Your task to perform on an android device: Open the stopwatch Image 0: 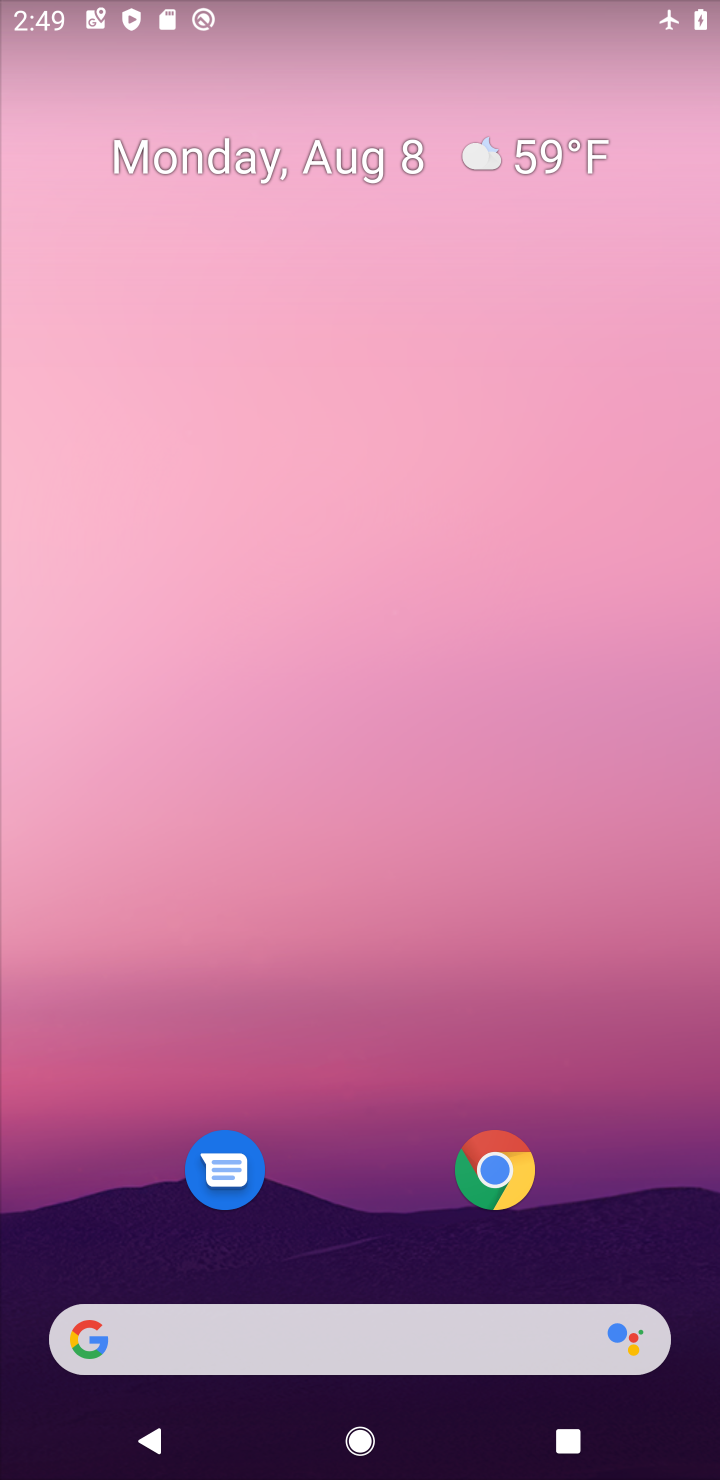
Step 0: drag from (349, 1114) to (373, 468)
Your task to perform on an android device: Open the stopwatch Image 1: 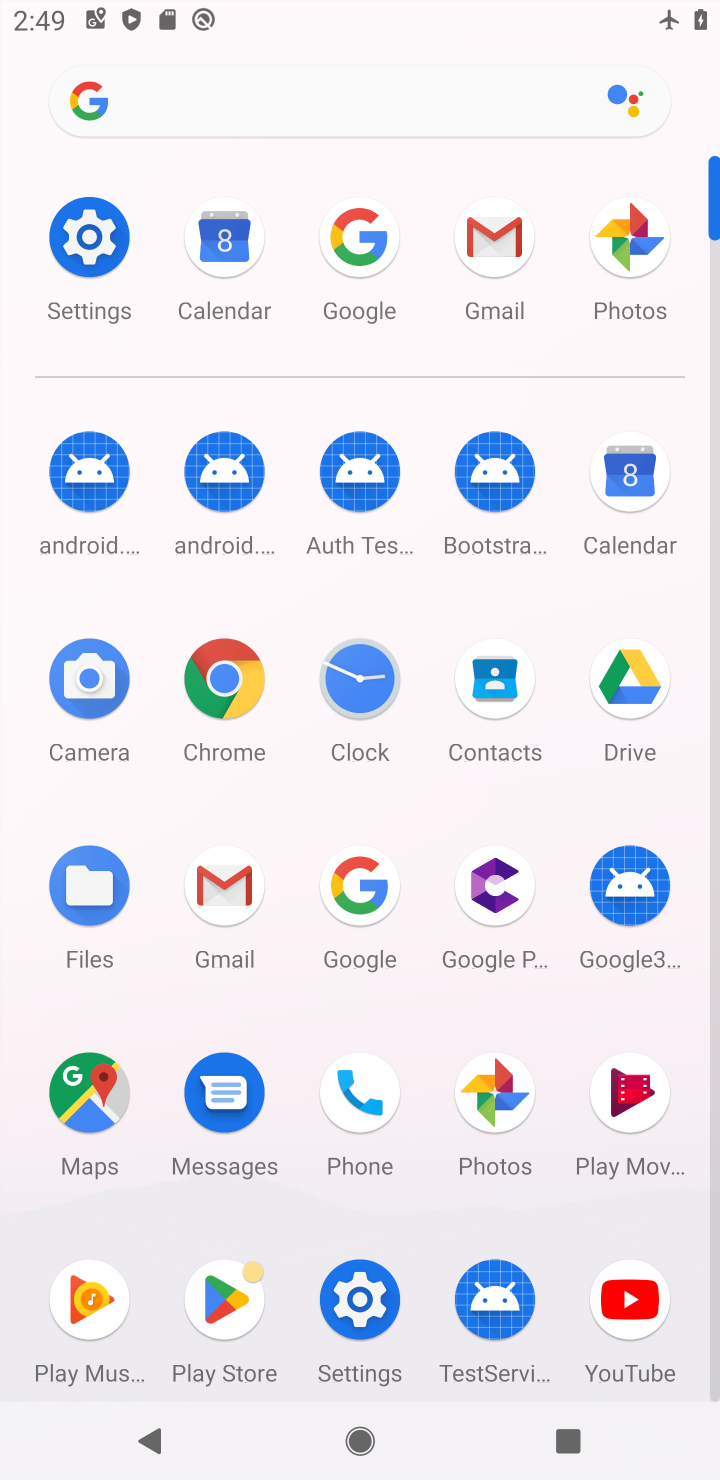
Step 1: click (339, 683)
Your task to perform on an android device: Open the stopwatch Image 2: 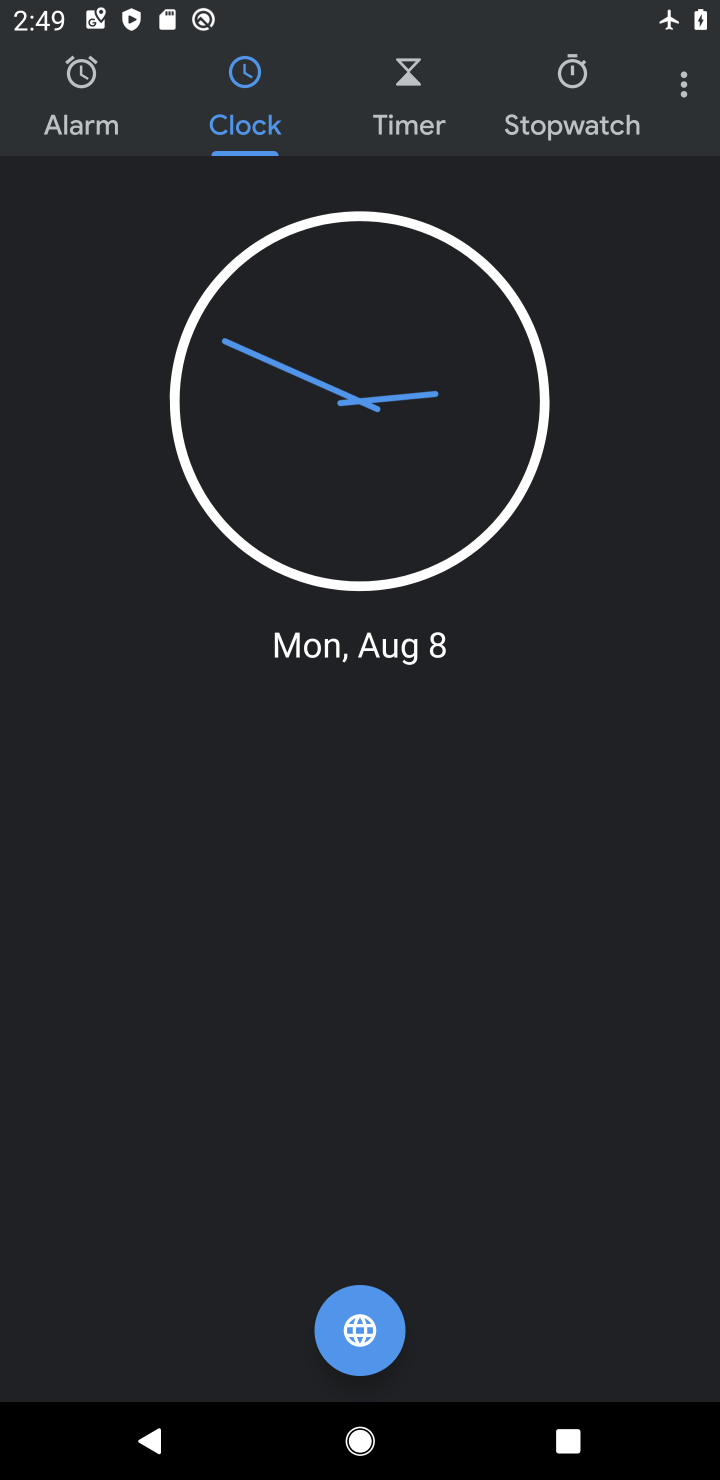
Step 2: click (581, 106)
Your task to perform on an android device: Open the stopwatch Image 3: 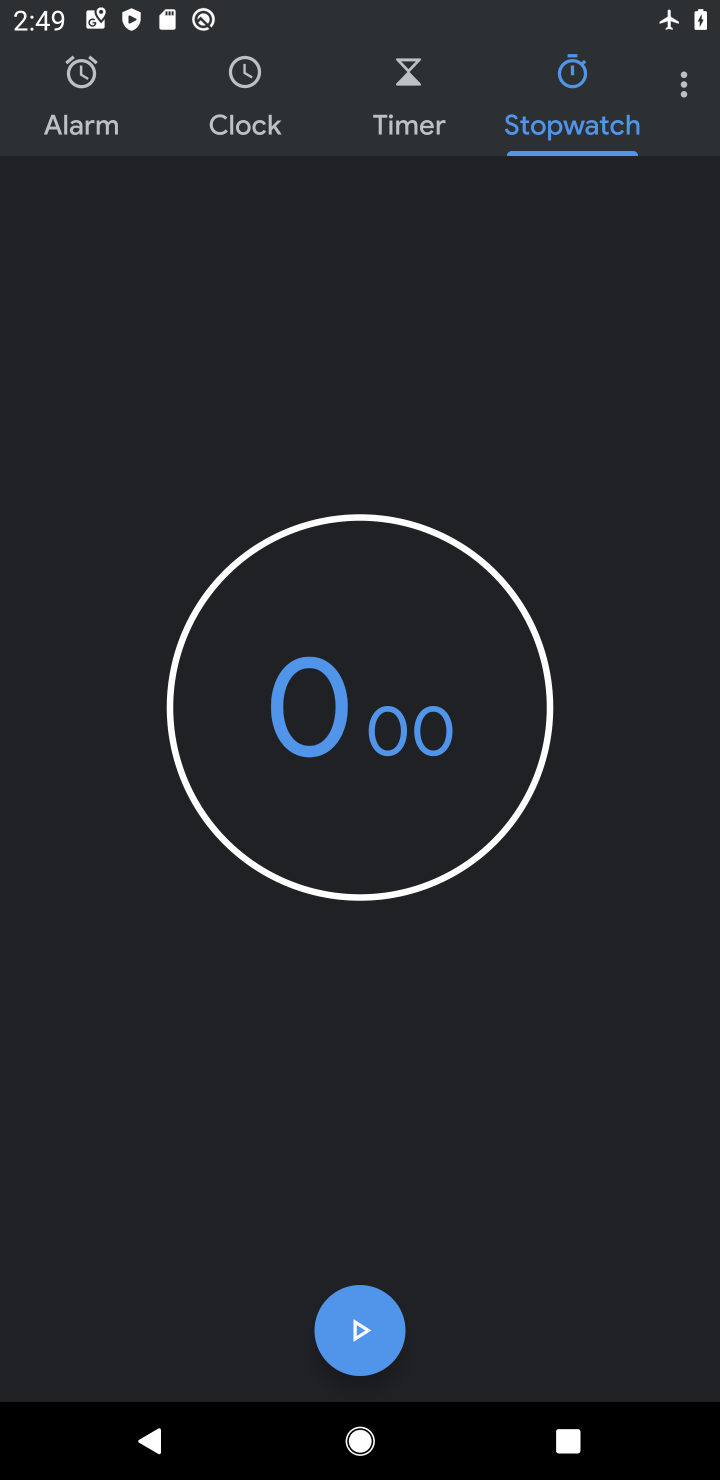
Step 3: task complete